Your task to perform on an android device: Open privacy settings Image 0: 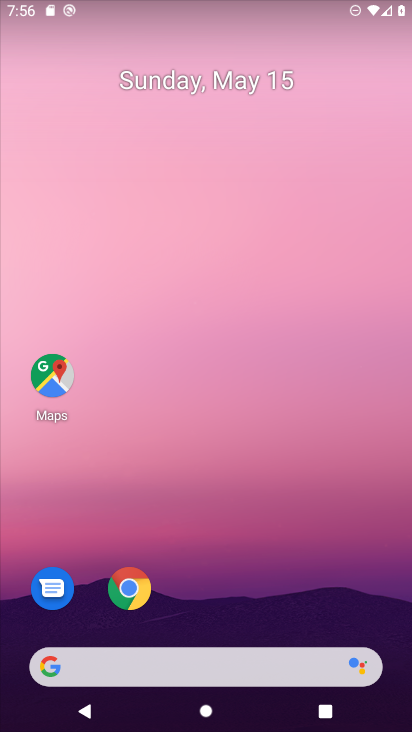
Step 0: drag from (220, 622) to (239, 42)
Your task to perform on an android device: Open privacy settings Image 1: 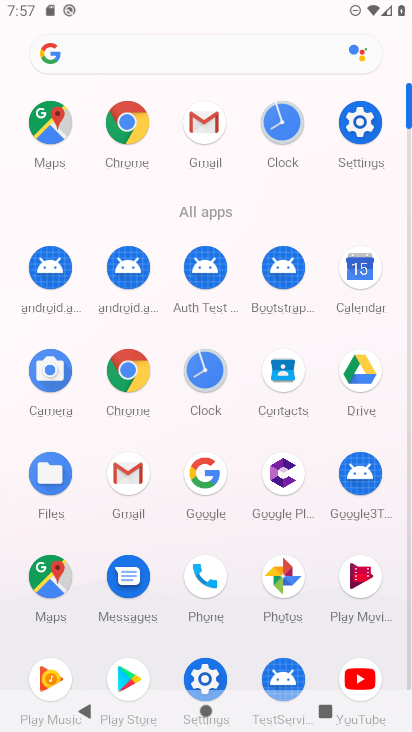
Step 1: click (353, 116)
Your task to perform on an android device: Open privacy settings Image 2: 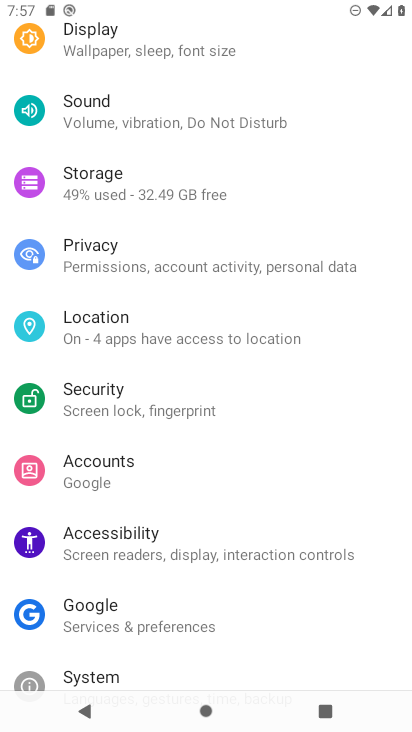
Step 2: click (119, 250)
Your task to perform on an android device: Open privacy settings Image 3: 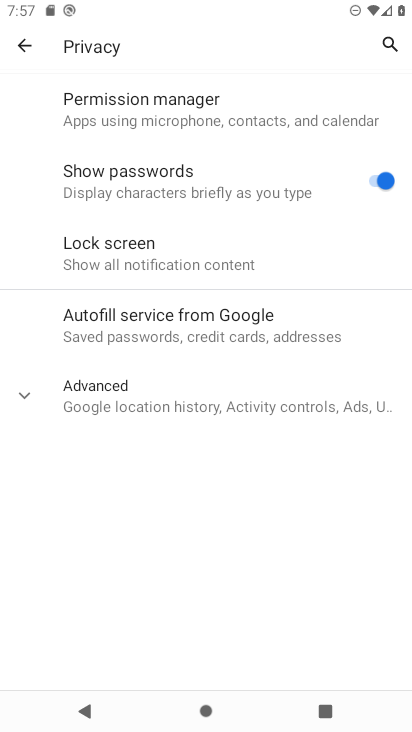
Step 3: click (17, 391)
Your task to perform on an android device: Open privacy settings Image 4: 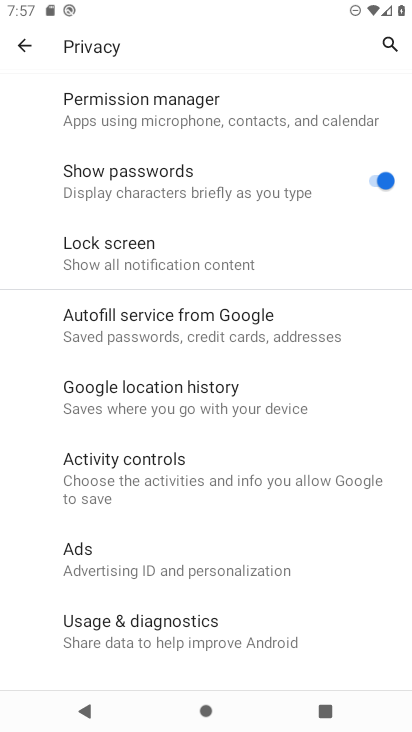
Step 4: task complete